Your task to perform on an android device: remove spam from my inbox in the gmail app Image 0: 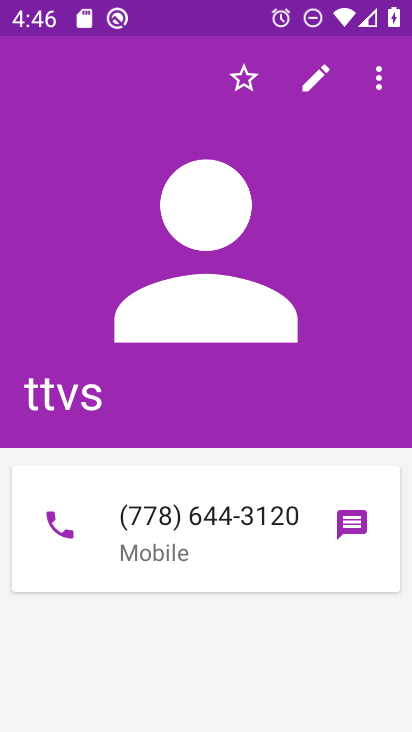
Step 0: press home button
Your task to perform on an android device: remove spam from my inbox in the gmail app Image 1: 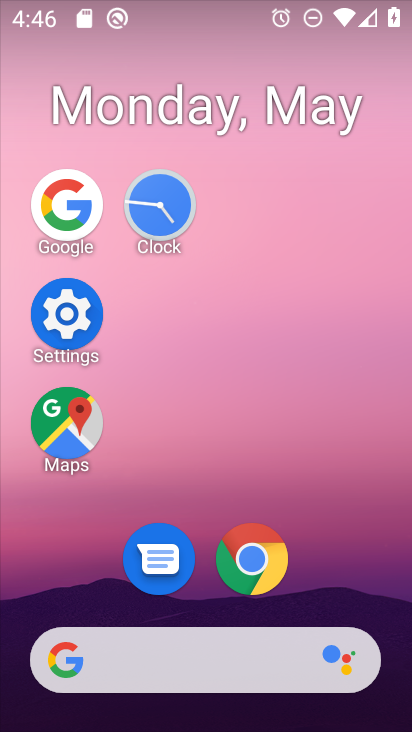
Step 1: drag from (387, 573) to (320, 143)
Your task to perform on an android device: remove spam from my inbox in the gmail app Image 2: 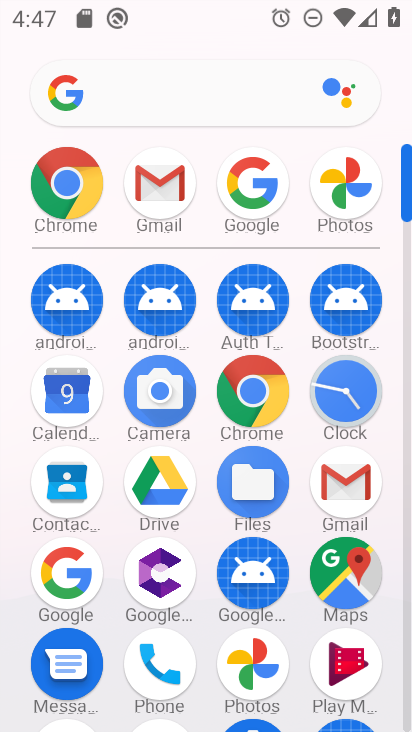
Step 2: drag from (347, 463) to (236, 299)
Your task to perform on an android device: remove spam from my inbox in the gmail app Image 3: 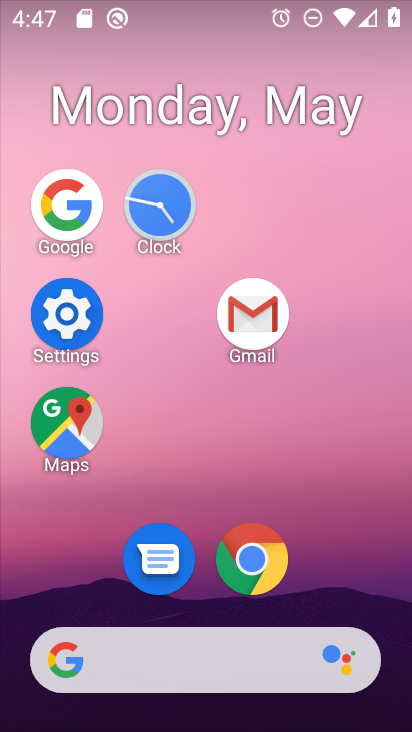
Step 3: click (250, 310)
Your task to perform on an android device: remove spam from my inbox in the gmail app Image 4: 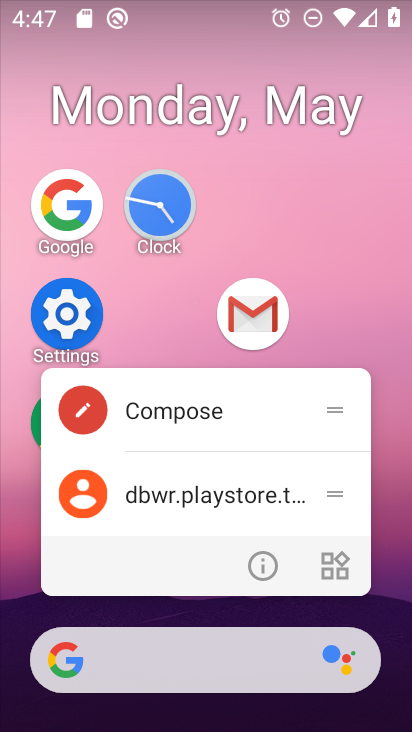
Step 4: click (260, 297)
Your task to perform on an android device: remove spam from my inbox in the gmail app Image 5: 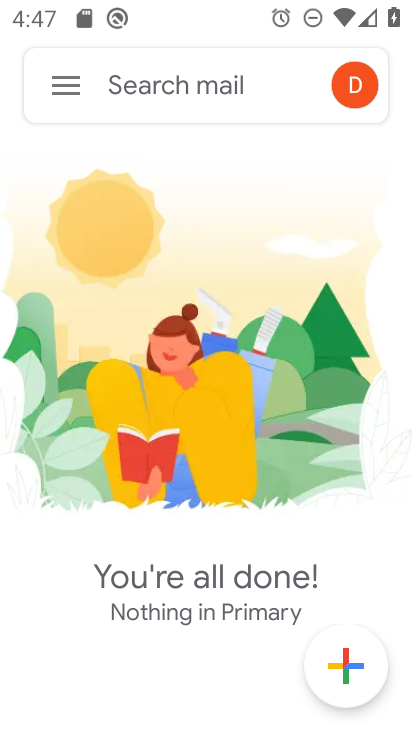
Step 5: click (79, 76)
Your task to perform on an android device: remove spam from my inbox in the gmail app Image 6: 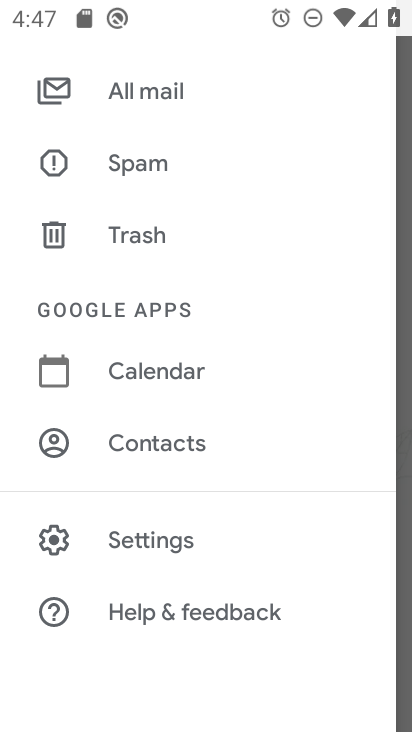
Step 6: click (146, 183)
Your task to perform on an android device: remove spam from my inbox in the gmail app Image 7: 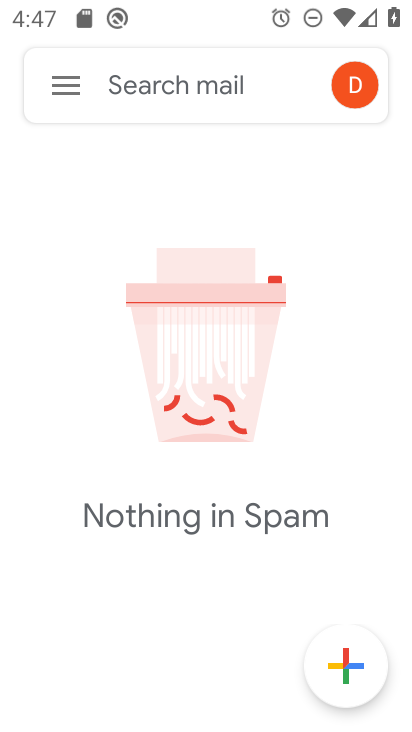
Step 7: task complete